Your task to perform on an android device: turn off translation in the chrome app Image 0: 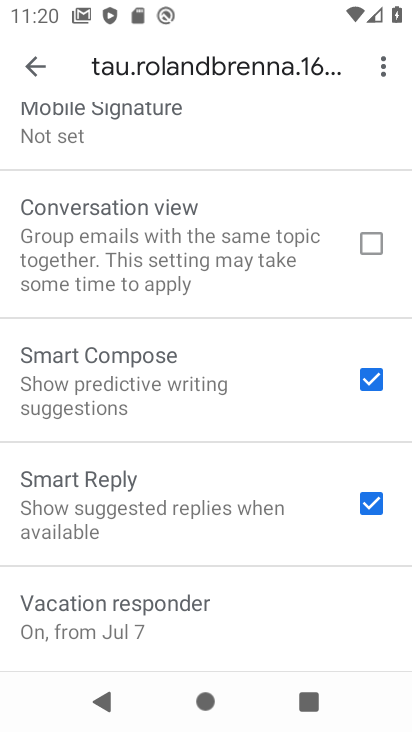
Step 0: press home button
Your task to perform on an android device: turn off translation in the chrome app Image 1: 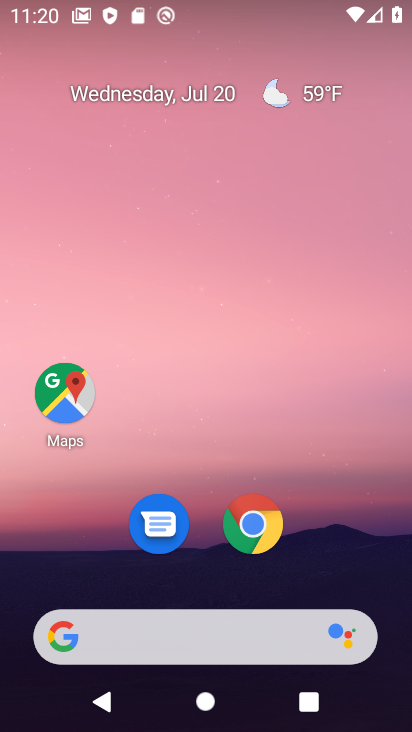
Step 1: click (261, 529)
Your task to perform on an android device: turn off translation in the chrome app Image 2: 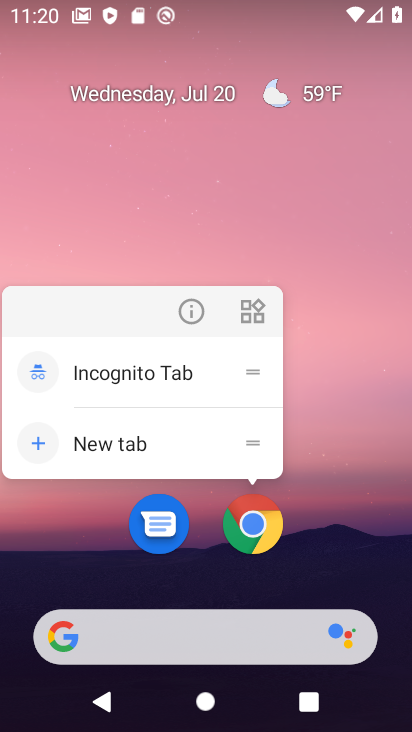
Step 2: click (248, 537)
Your task to perform on an android device: turn off translation in the chrome app Image 3: 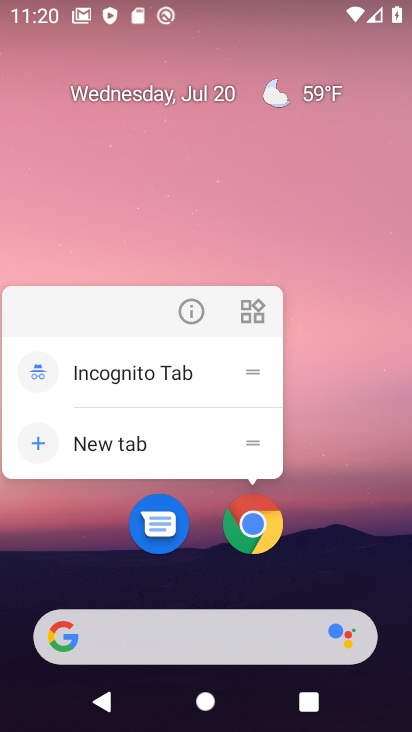
Step 3: click (248, 537)
Your task to perform on an android device: turn off translation in the chrome app Image 4: 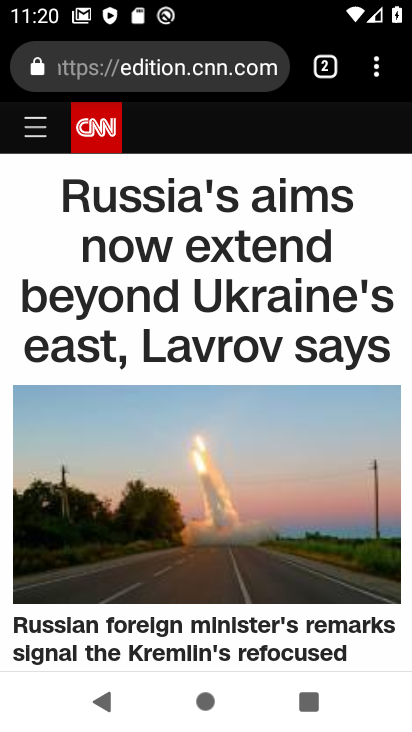
Step 4: drag from (377, 75) to (215, 533)
Your task to perform on an android device: turn off translation in the chrome app Image 5: 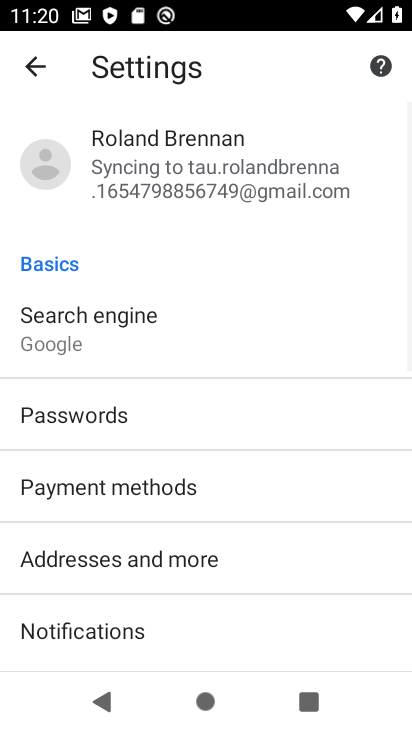
Step 5: drag from (196, 611) to (283, 180)
Your task to perform on an android device: turn off translation in the chrome app Image 6: 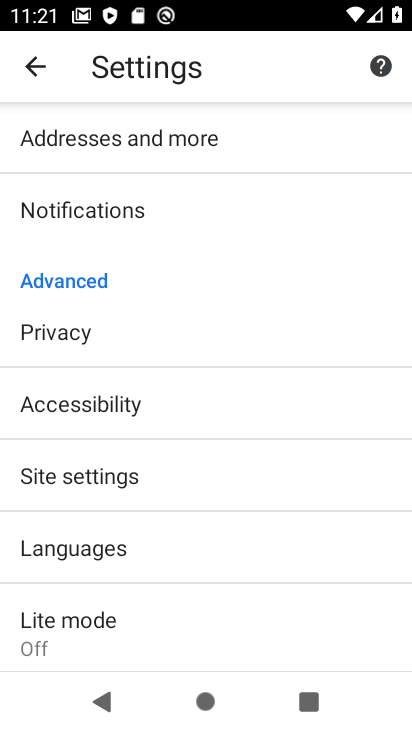
Step 6: click (105, 554)
Your task to perform on an android device: turn off translation in the chrome app Image 7: 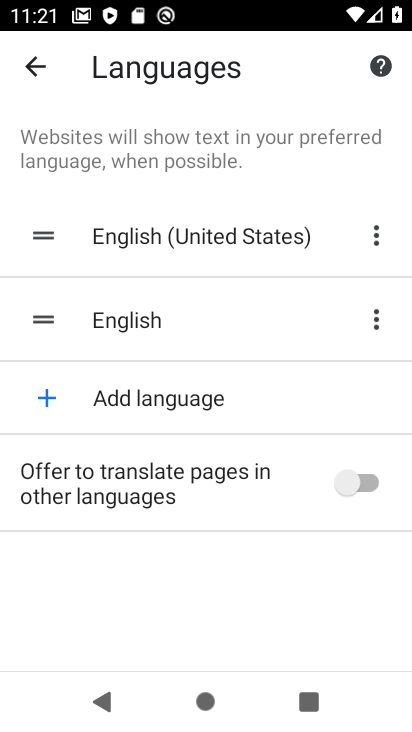
Step 7: task complete